Your task to perform on an android device: open app "PUBG MOBILE" (install if not already installed) Image 0: 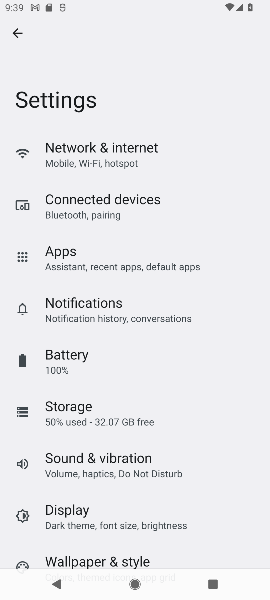
Step 0: press back button
Your task to perform on an android device: open app "PUBG MOBILE" (install if not already installed) Image 1: 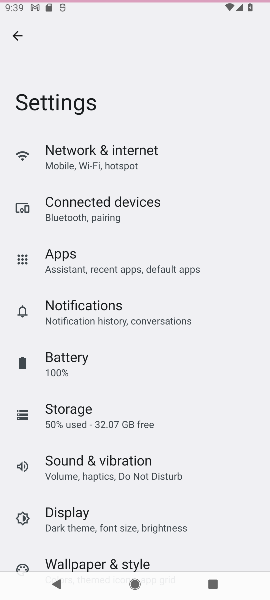
Step 1: press home button
Your task to perform on an android device: open app "PUBG MOBILE" (install if not already installed) Image 2: 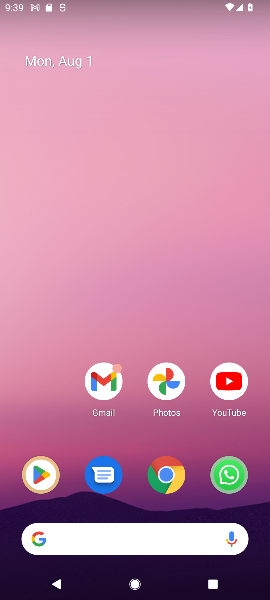
Step 2: drag from (129, 502) to (103, 2)
Your task to perform on an android device: open app "PUBG MOBILE" (install if not already installed) Image 3: 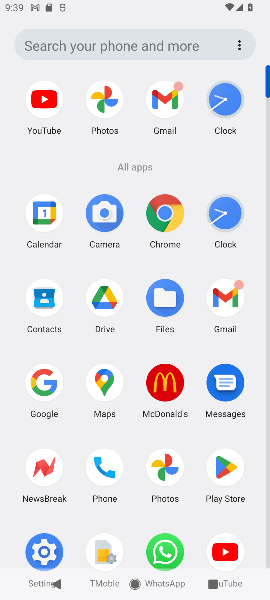
Step 3: click (238, 461)
Your task to perform on an android device: open app "PUBG MOBILE" (install if not already installed) Image 4: 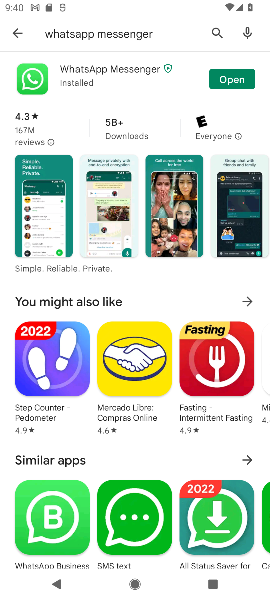
Step 4: click (15, 30)
Your task to perform on an android device: open app "PUBG MOBILE" (install if not already installed) Image 5: 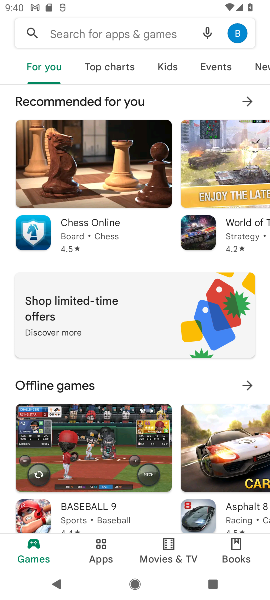
Step 5: click (67, 36)
Your task to perform on an android device: open app "PUBG MOBILE" (install if not already installed) Image 6: 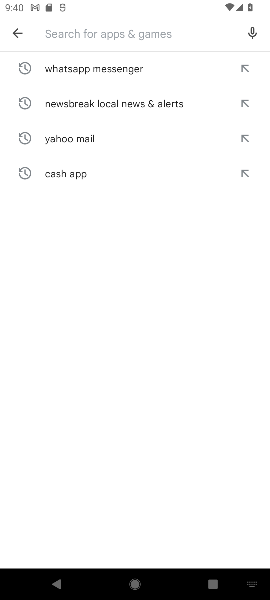
Step 6: type "PUBG MOBILE"
Your task to perform on an android device: open app "PUBG MOBILE" (install if not already installed) Image 7: 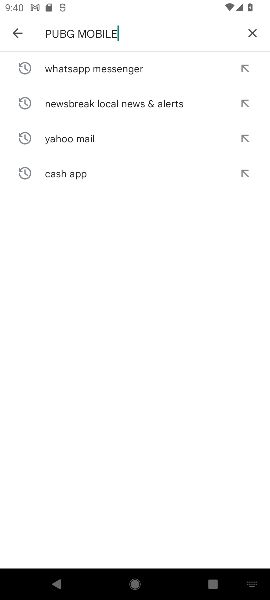
Step 7: type ""
Your task to perform on an android device: open app "PUBG MOBILE" (install if not already installed) Image 8: 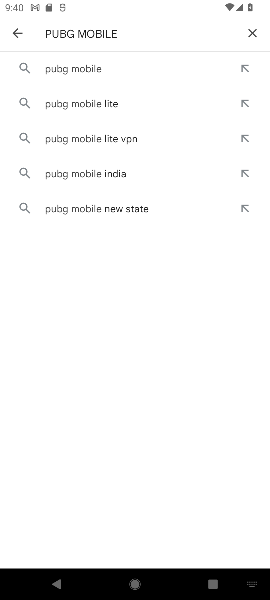
Step 8: click (63, 77)
Your task to perform on an android device: open app "PUBG MOBILE" (install if not already installed) Image 9: 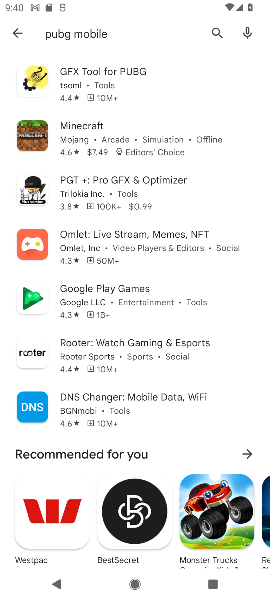
Step 9: task complete